Your task to perform on an android device: turn off javascript in the chrome app Image 0: 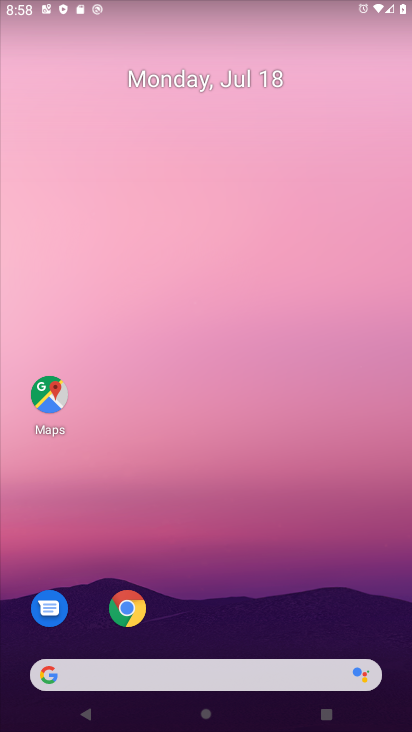
Step 0: drag from (248, 728) to (248, 142)
Your task to perform on an android device: turn off javascript in the chrome app Image 1: 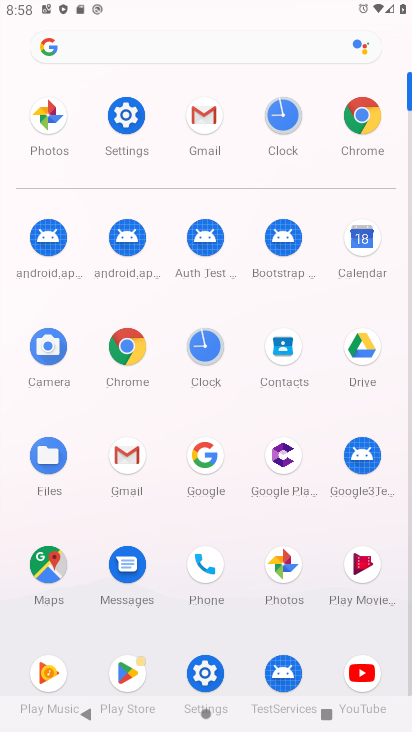
Step 1: click (127, 349)
Your task to perform on an android device: turn off javascript in the chrome app Image 2: 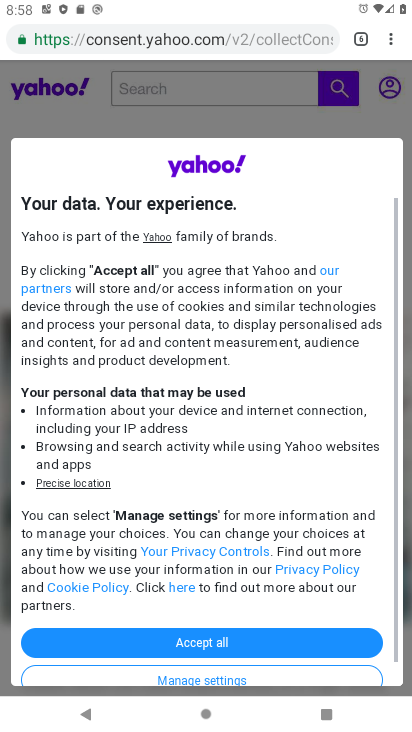
Step 2: click (391, 46)
Your task to perform on an android device: turn off javascript in the chrome app Image 3: 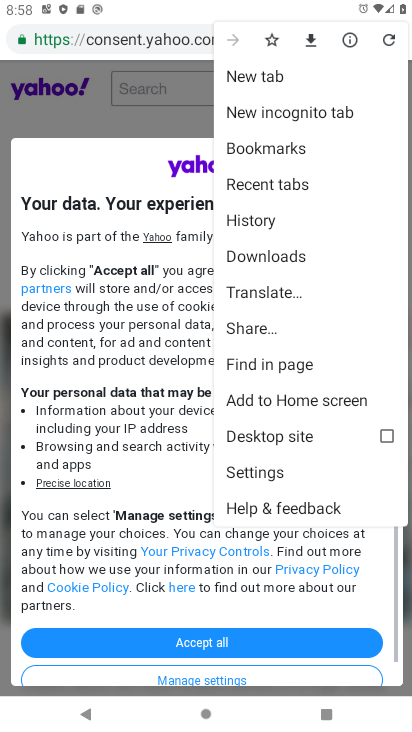
Step 3: click (262, 473)
Your task to perform on an android device: turn off javascript in the chrome app Image 4: 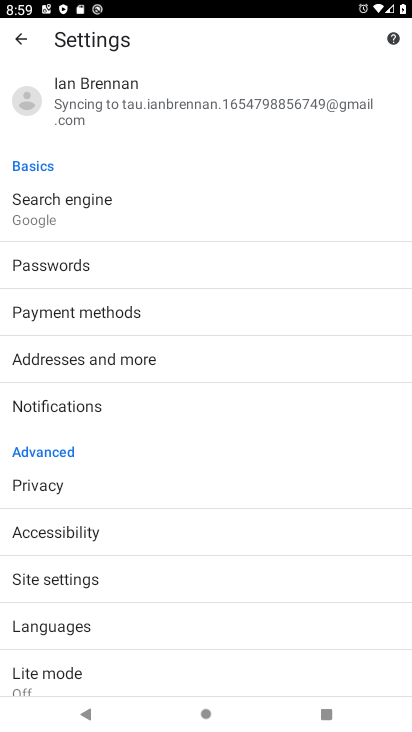
Step 4: click (52, 580)
Your task to perform on an android device: turn off javascript in the chrome app Image 5: 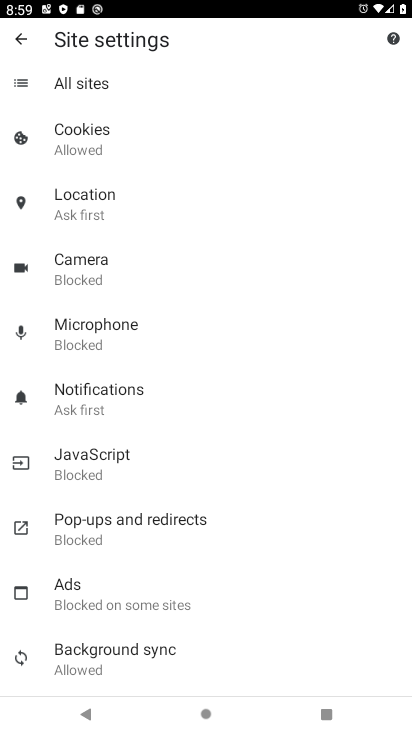
Step 5: click (83, 468)
Your task to perform on an android device: turn off javascript in the chrome app Image 6: 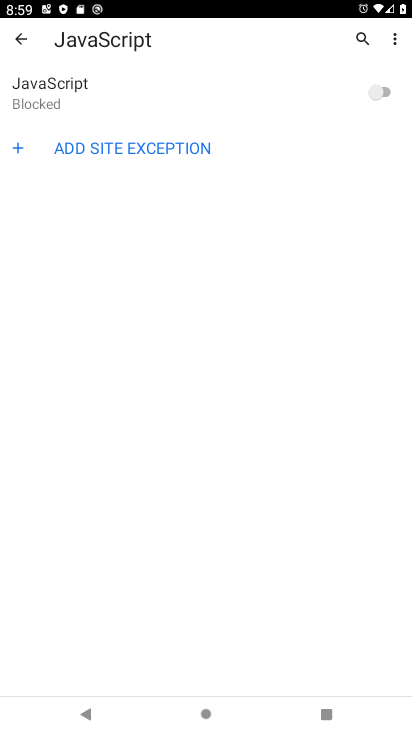
Step 6: task complete